Your task to perform on an android device: change notifications settings Image 0: 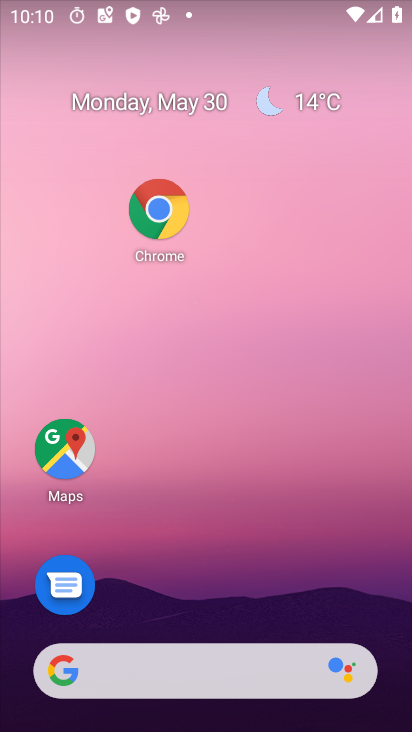
Step 0: drag from (233, 498) to (263, 58)
Your task to perform on an android device: change notifications settings Image 1: 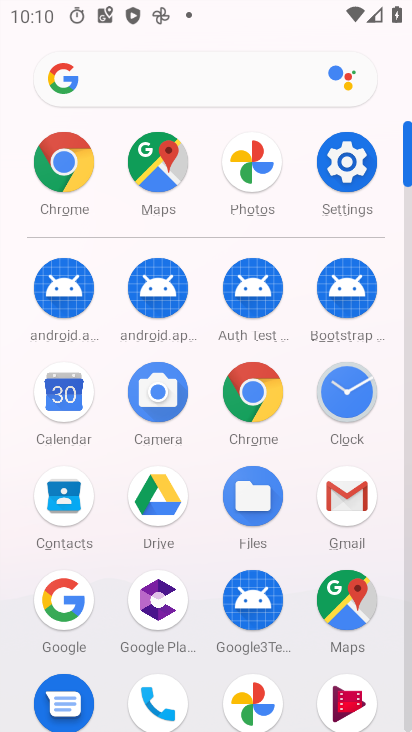
Step 1: click (346, 155)
Your task to perform on an android device: change notifications settings Image 2: 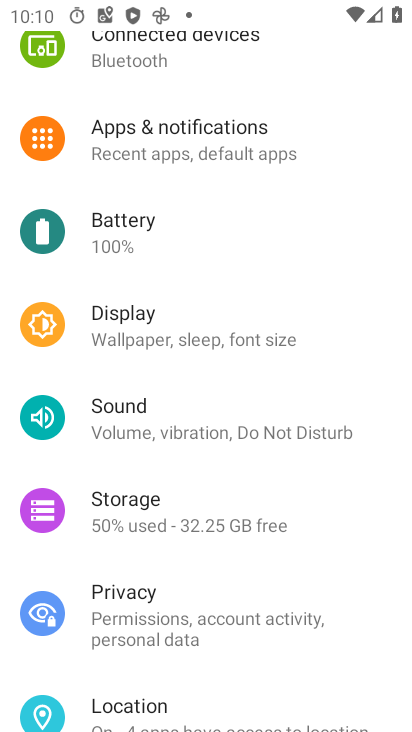
Step 2: click (157, 144)
Your task to perform on an android device: change notifications settings Image 3: 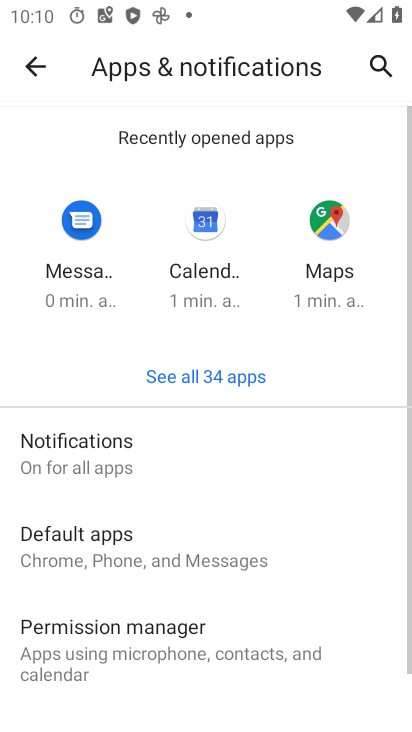
Step 3: click (115, 429)
Your task to perform on an android device: change notifications settings Image 4: 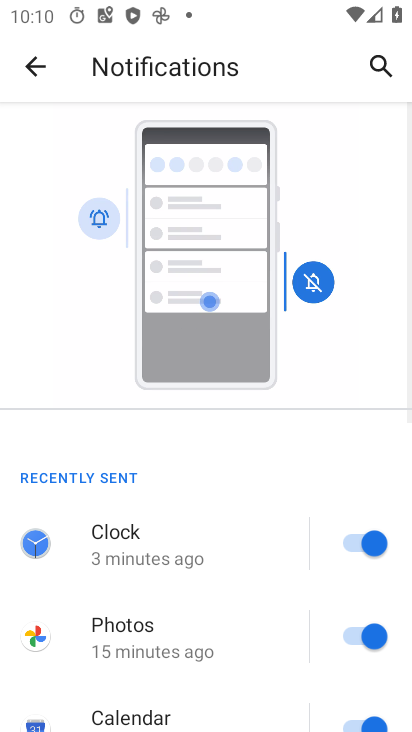
Step 4: drag from (291, 547) to (316, 293)
Your task to perform on an android device: change notifications settings Image 5: 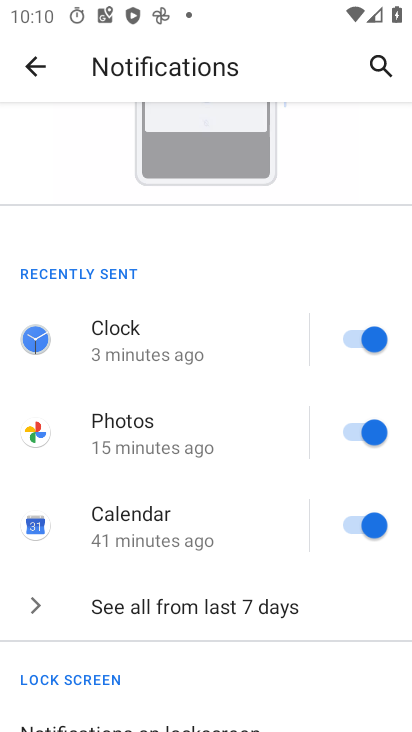
Step 5: click (356, 334)
Your task to perform on an android device: change notifications settings Image 6: 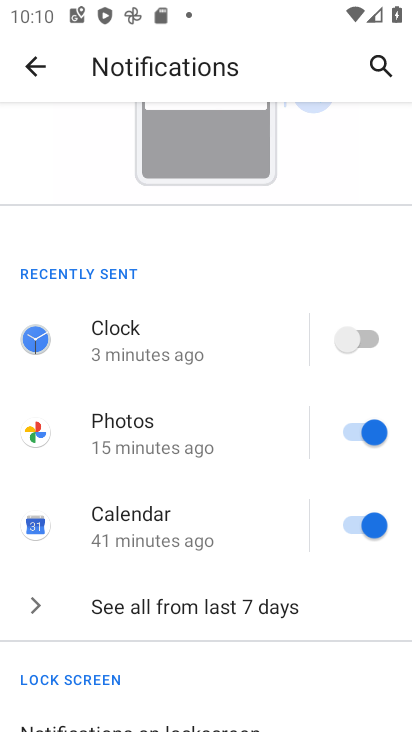
Step 6: task complete